Your task to perform on an android device: Search for seafood restaurants on Google Maps Image 0: 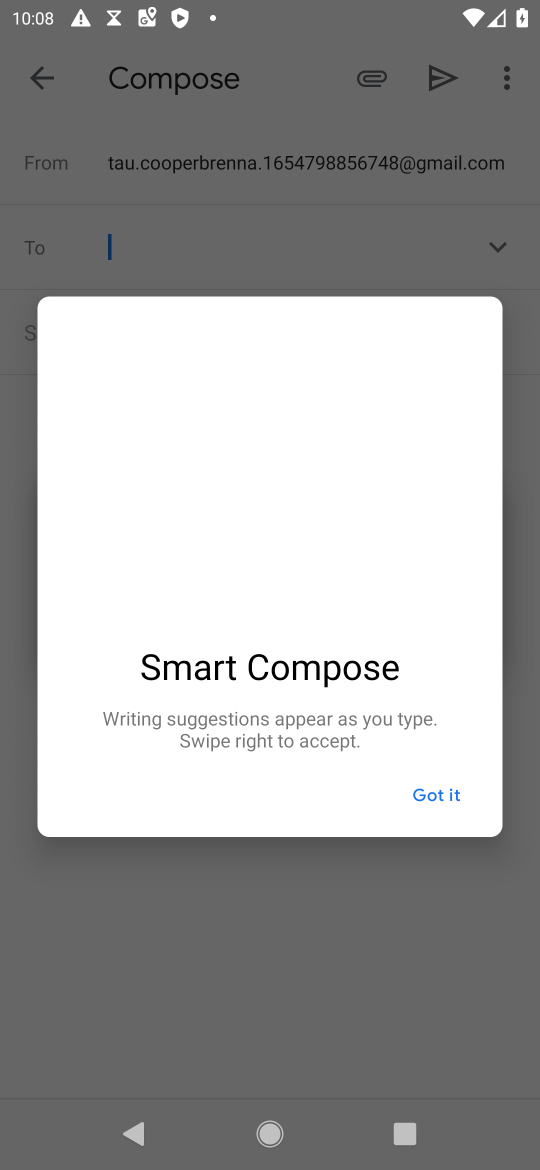
Step 0: press home button
Your task to perform on an android device: Search for seafood restaurants on Google Maps Image 1: 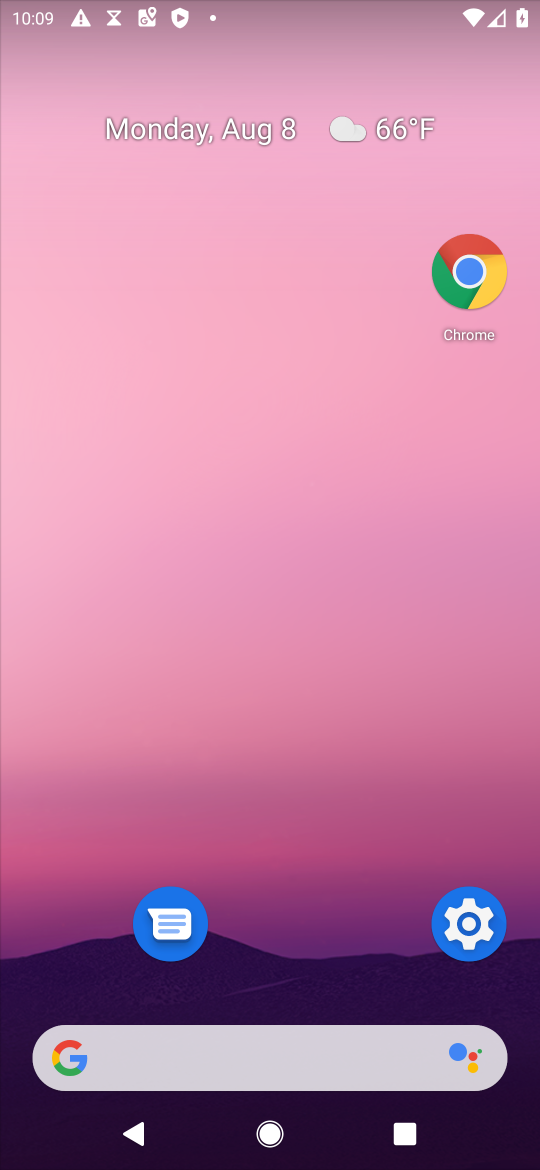
Step 1: drag from (278, 953) to (221, 233)
Your task to perform on an android device: Search for seafood restaurants on Google Maps Image 2: 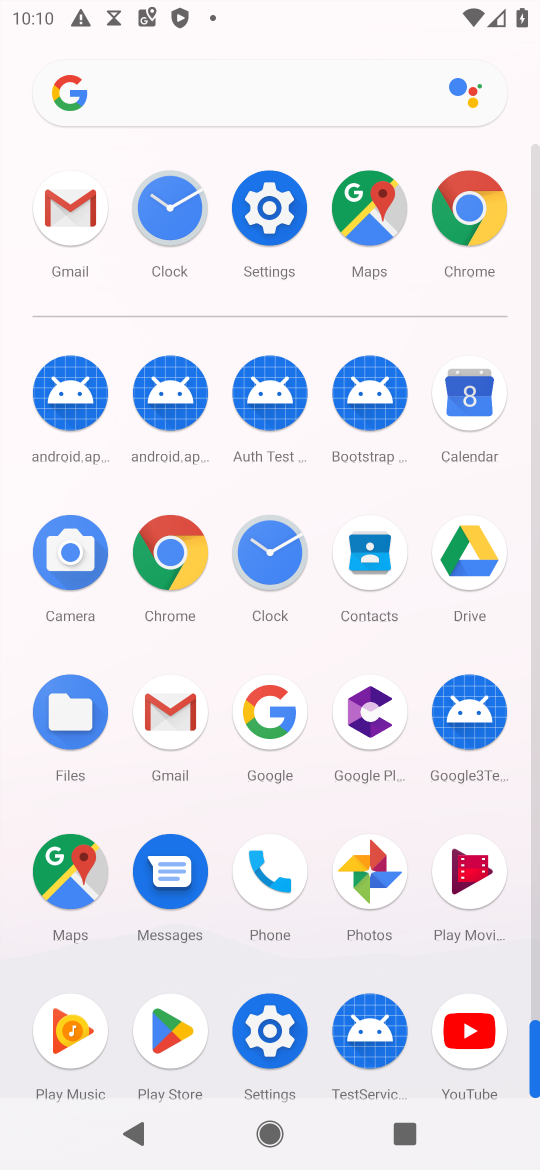
Step 2: click (359, 186)
Your task to perform on an android device: Search for seafood restaurants on Google Maps Image 3: 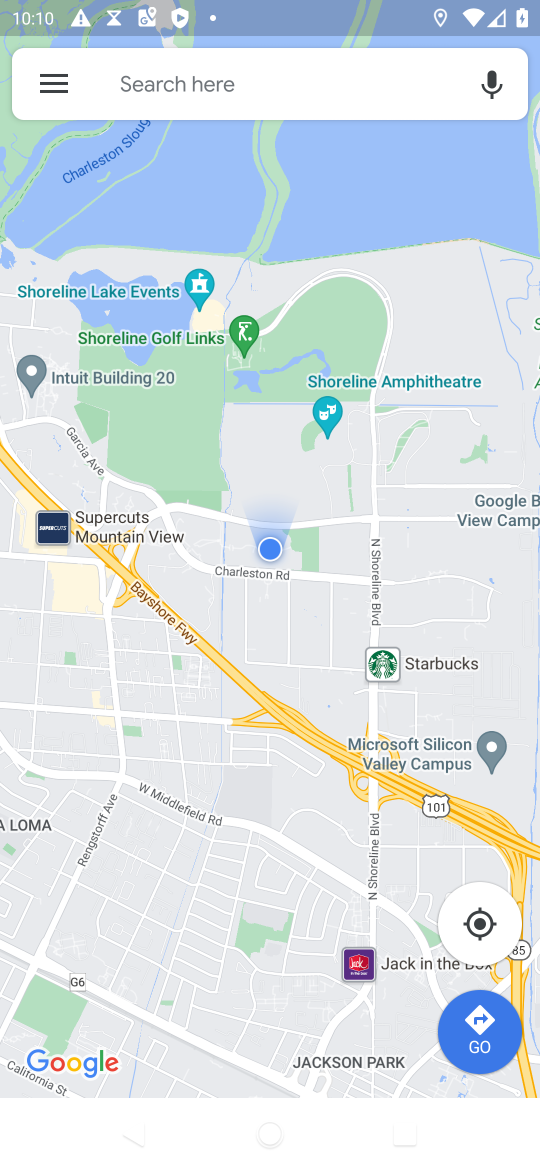
Step 3: click (309, 59)
Your task to perform on an android device: Search for seafood restaurants on Google Maps Image 4: 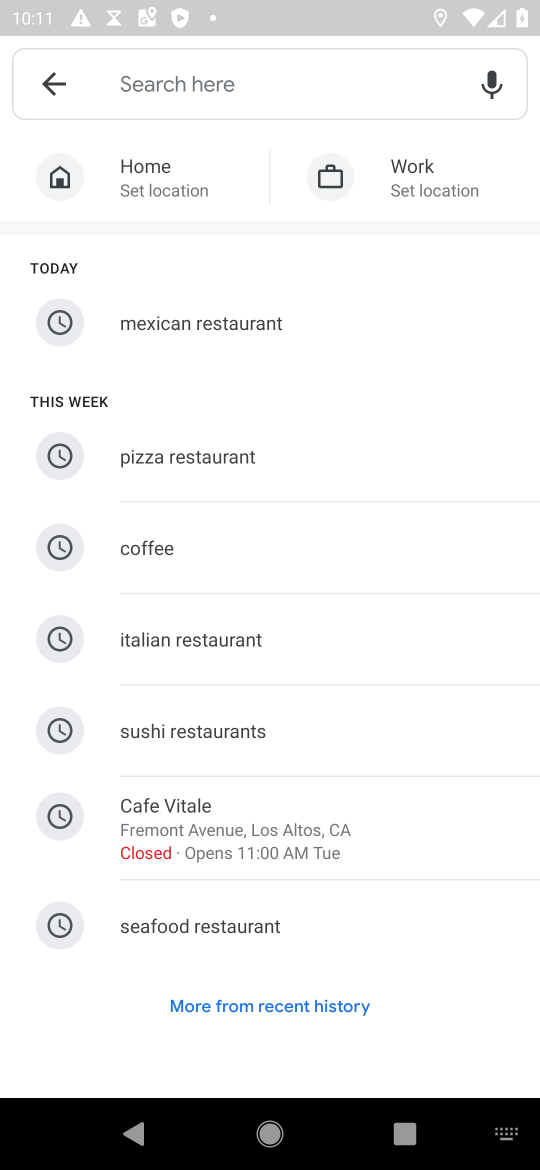
Step 4: type " seafood restaurants"
Your task to perform on an android device: Search for seafood restaurants on Google Maps Image 5: 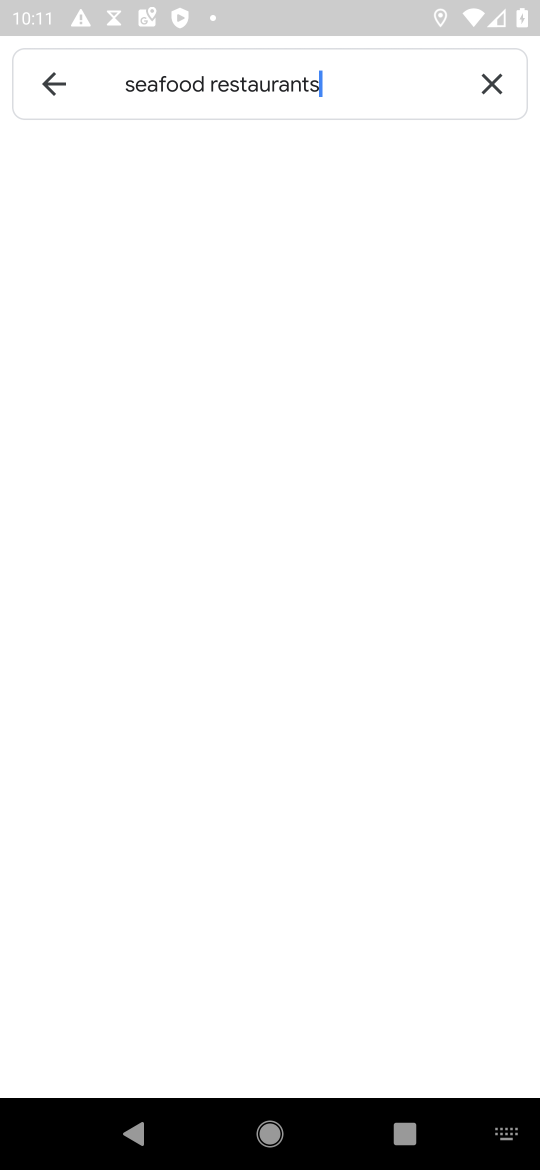
Step 5: type ""
Your task to perform on an android device: Search for seafood restaurants on Google Maps Image 6: 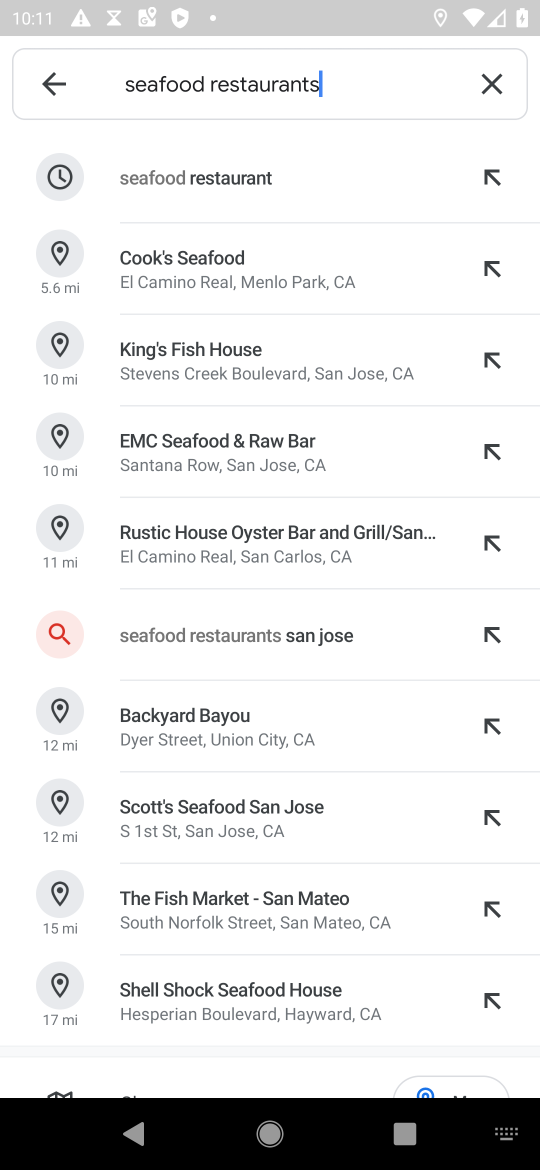
Step 6: click (281, 176)
Your task to perform on an android device: Search for seafood restaurants on Google Maps Image 7: 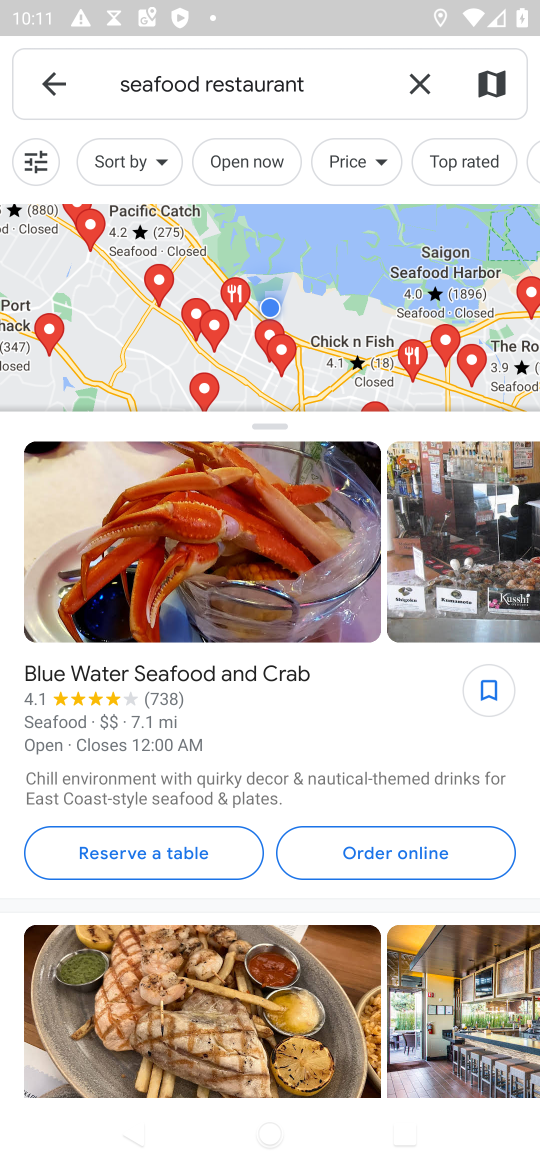
Step 7: task complete